Your task to perform on an android device: toggle translation in the chrome app Image 0: 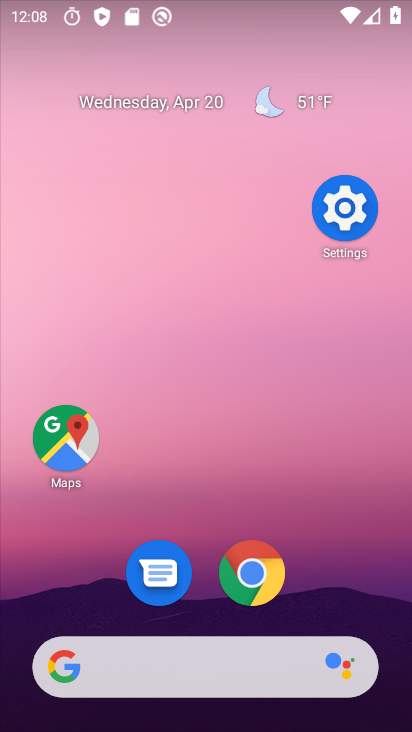
Step 0: click (265, 581)
Your task to perform on an android device: toggle translation in the chrome app Image 1: 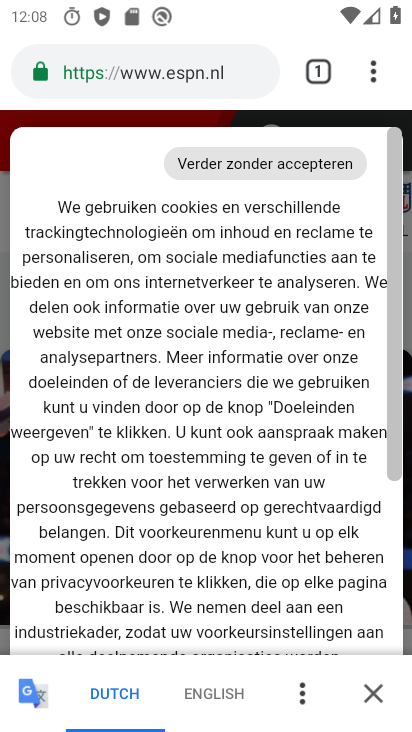
Step 1: drag from (375, 70) to (207, 574)
Your task to perform on an android device: toggle translation in the chrome app Image 2: 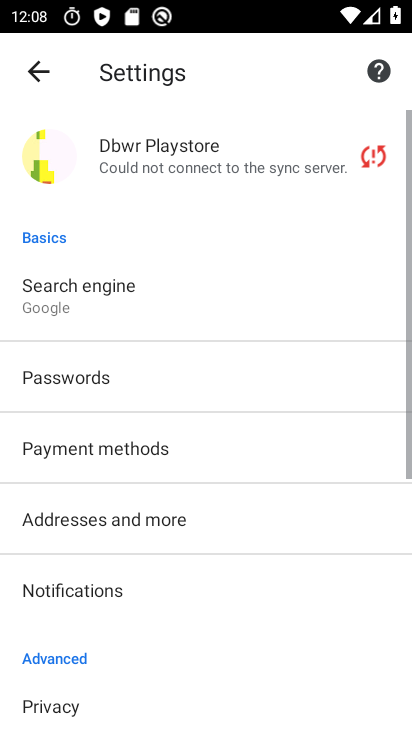
Step 2: drag from (195, 669) to (194, 192)
Your task to perform on an android device: toggle translation in the chrome app Image 3: 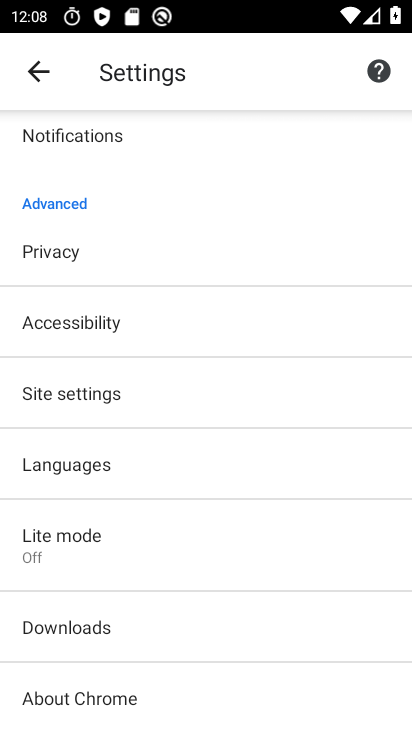
Step 3: click (97, 465)
Your task to perform on an android device: toggle translation in the chrome app Image 4: 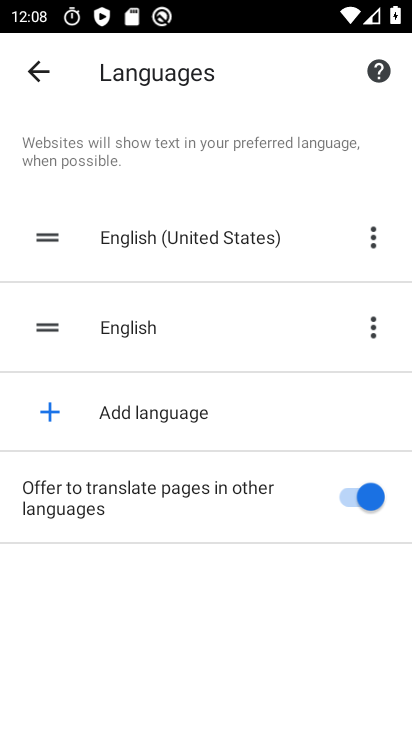
Step 4: click (347, 493)
Your task to perform on an android device: toggle translation in the chrome app Image 5: 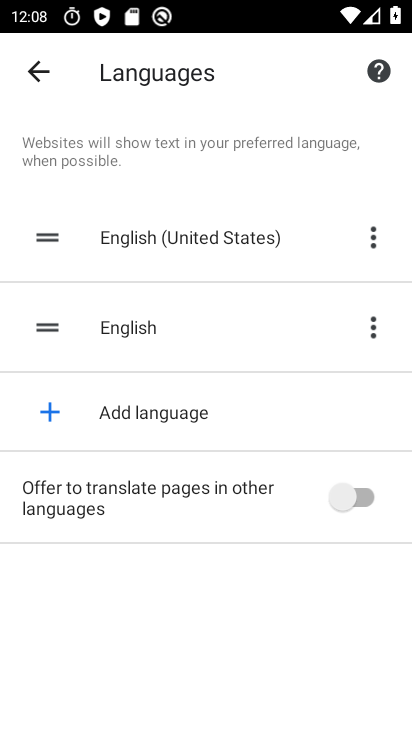
Step 5: task complete